Your task to perform on an android device: Open maps Image 0: 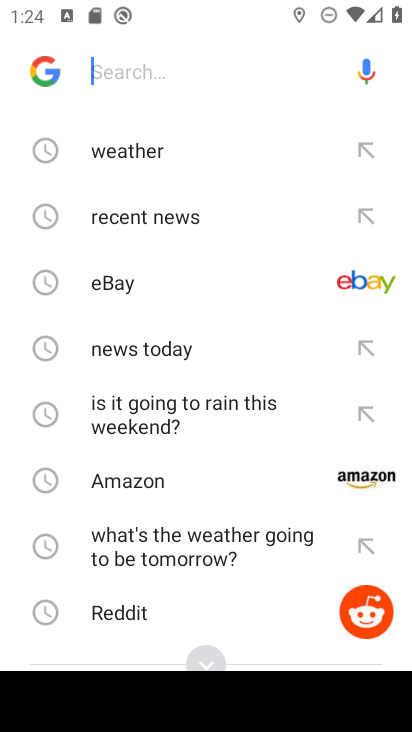
Step 0: press home button
Your task to perform on an android device: Open maps Image 1: 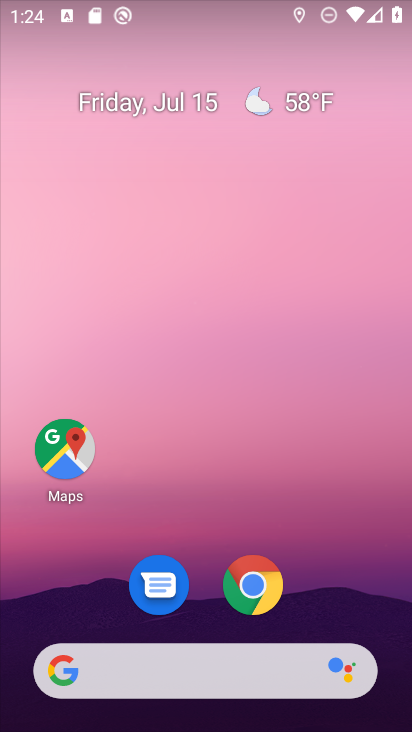
Step 1: click (70, 449)
Your task to perform on an android device: Open maps Image 2: 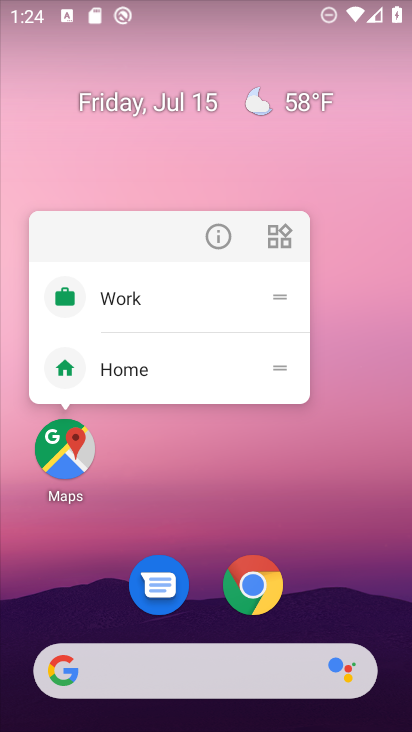
Step 2: click (70, 450)
Your task to perform on an android device: Open maps Image 3: 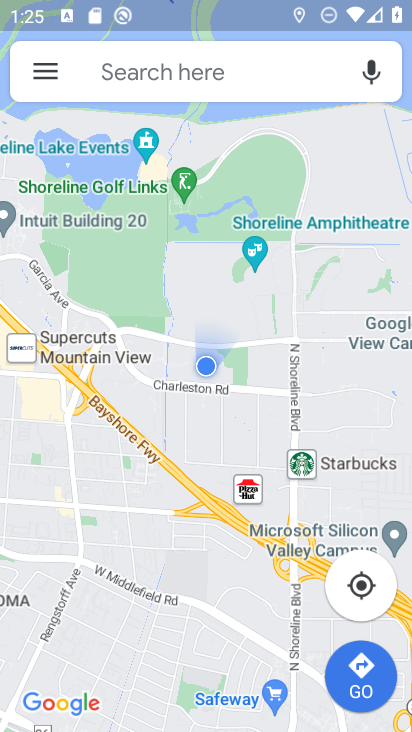
Step 3: task complete